Your task to perform on an android device: Go to battery settings Image 0: 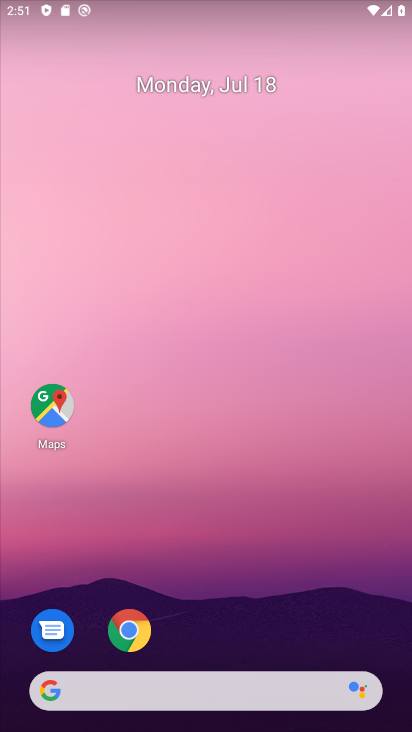
Step 0: drag from (209, 668) to (266, 154)
Your task to perform on an android device: Go to battery settings Image 1: 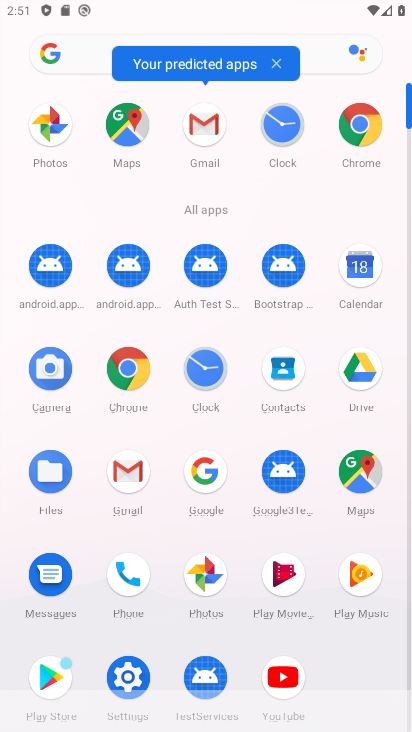
Step 1: click (131, 669)
Your task to perform on an android device: Go to battery settings Image 2: 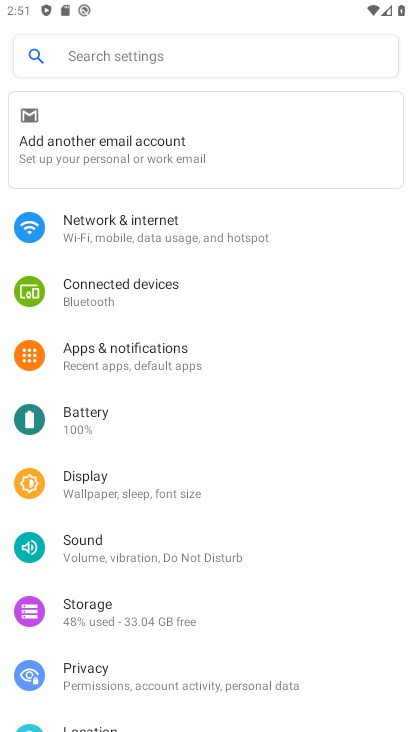
Step 2: click (106, 422)
Your task to perform on an android device: Go to battery settings Image 3: 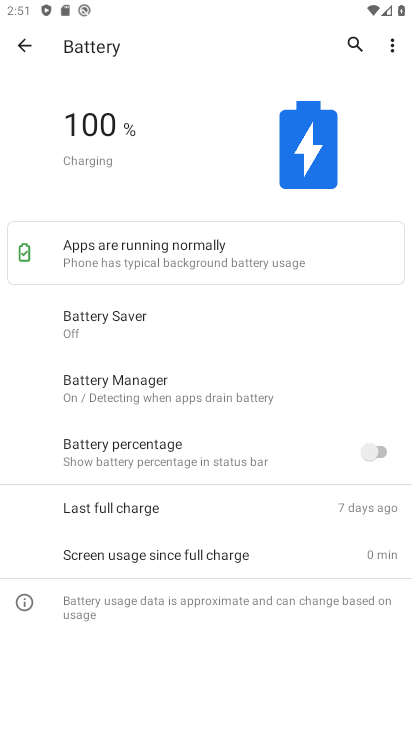
Step 3: task complete